Your task to perform on an android device: Open ESPN.com Image 0: 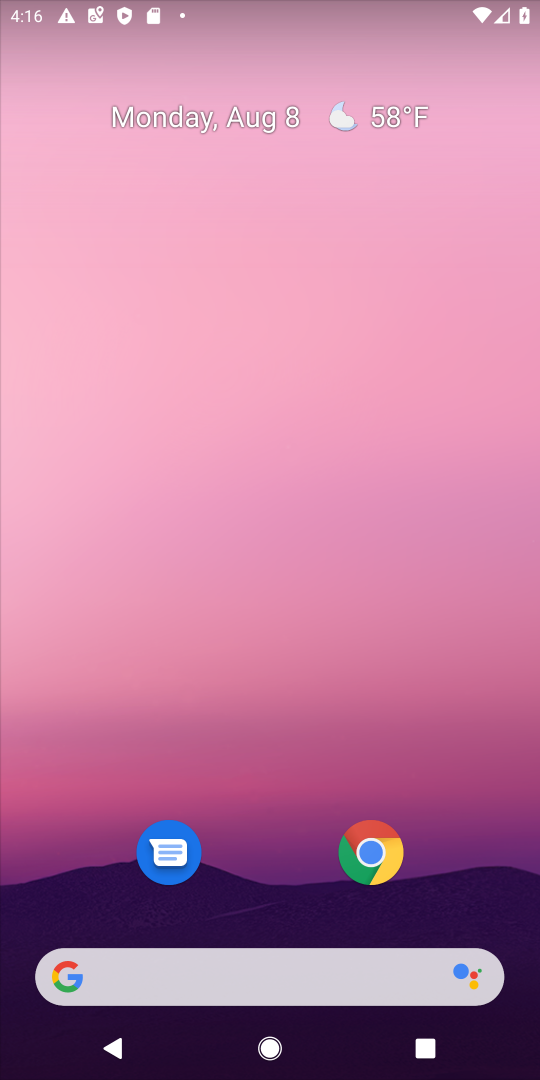
Step 0: press home button
Your task to perform on an android device: Open ESPN.com Image 1: 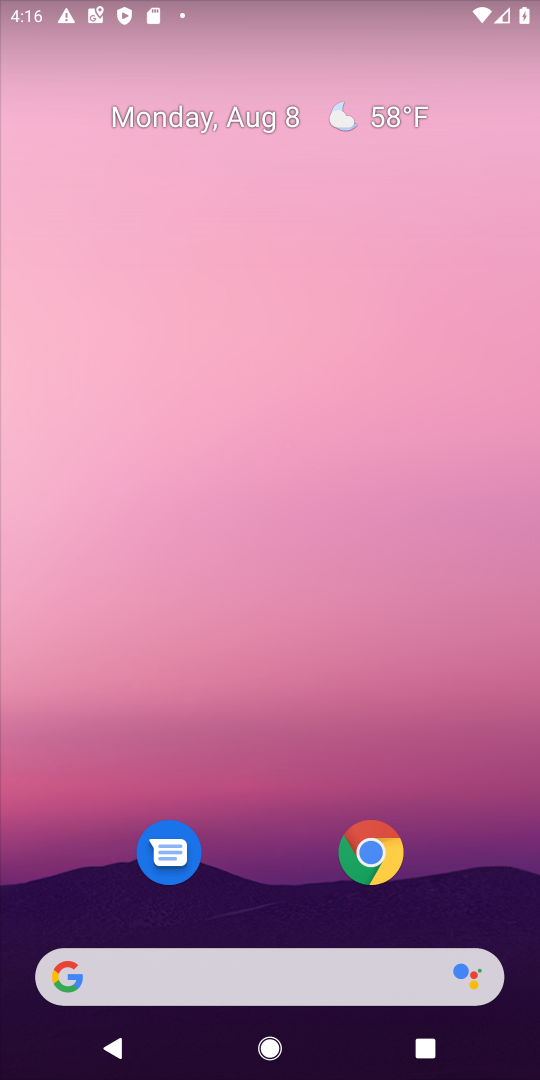
Step 1: press home button
Your task to perform on an android device: Open ESPN.com Image 2: 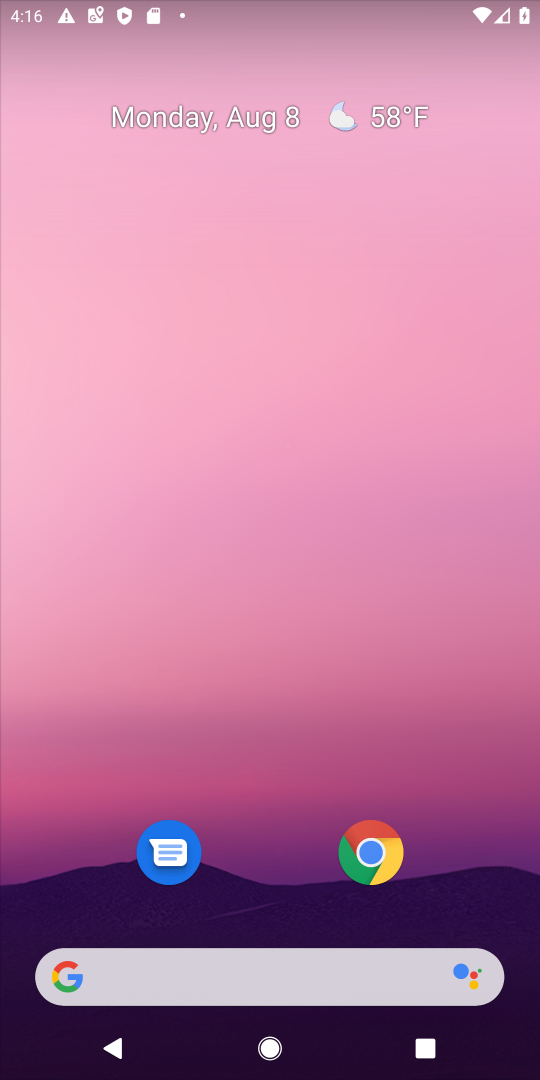
Step 2: drag from (251, 829) to (347, 24)
Your task to perform on an android device: Open ESPN.com Image 3: 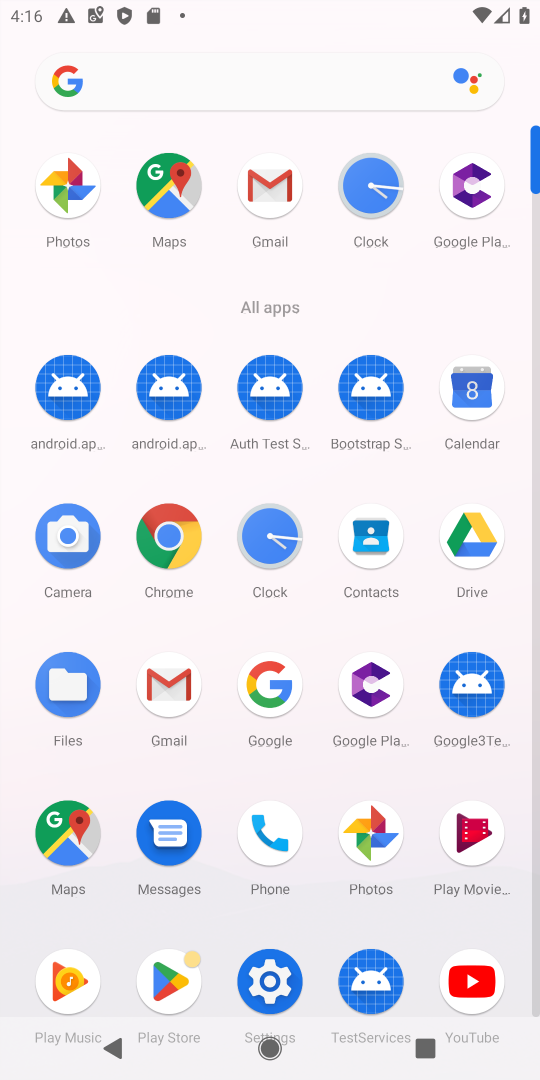
Step 3: click (167, 535)
Your task to perform on an android device: Open ESPN.com Image 4: 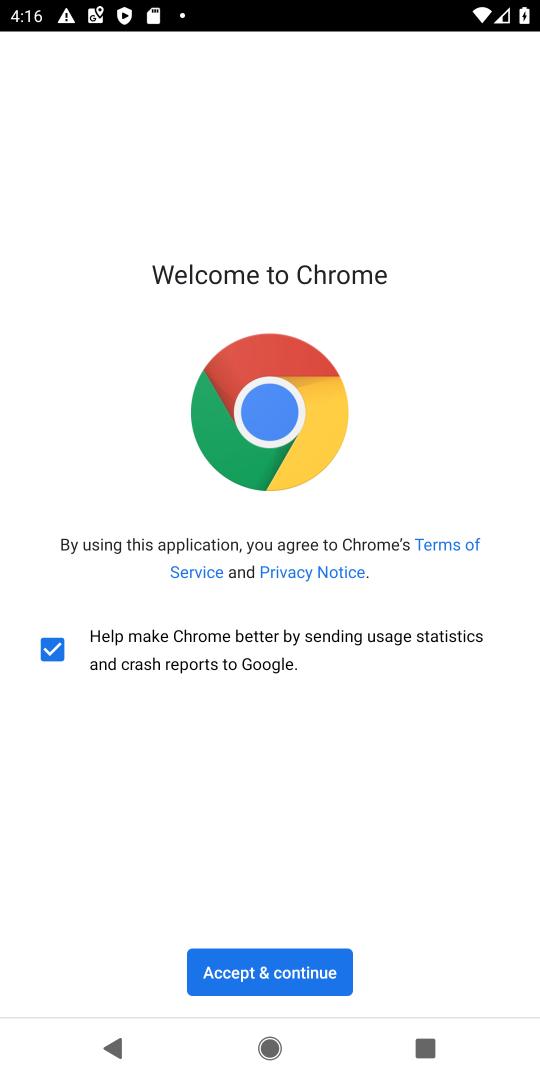
Step 4: click (310, 965)
Your task to perform on an android device: Open ESPN.com Image 5: 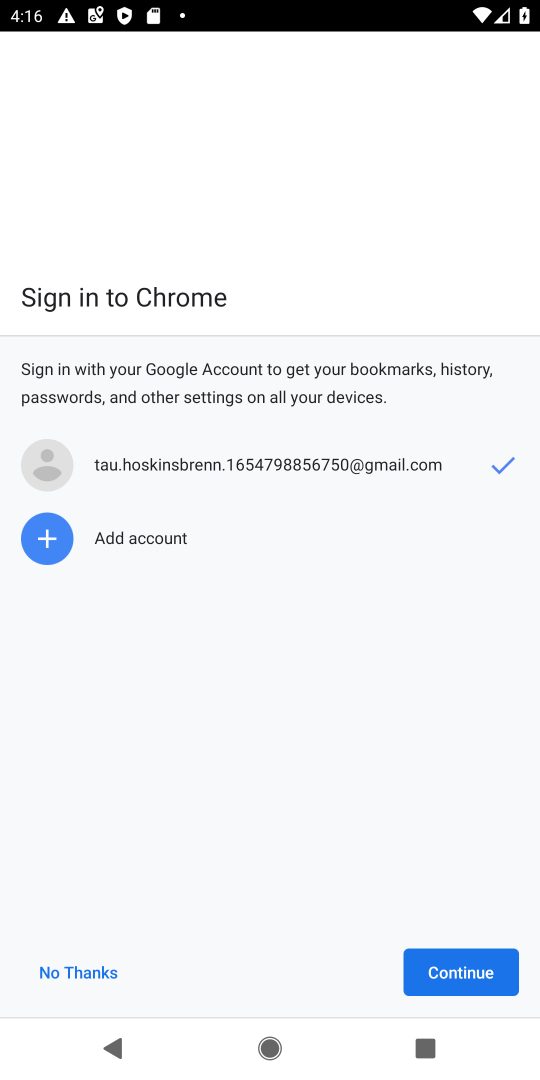
Step 5: click (466, 972)
Your task to perform on an android device: Open ESPN.com Image 6: 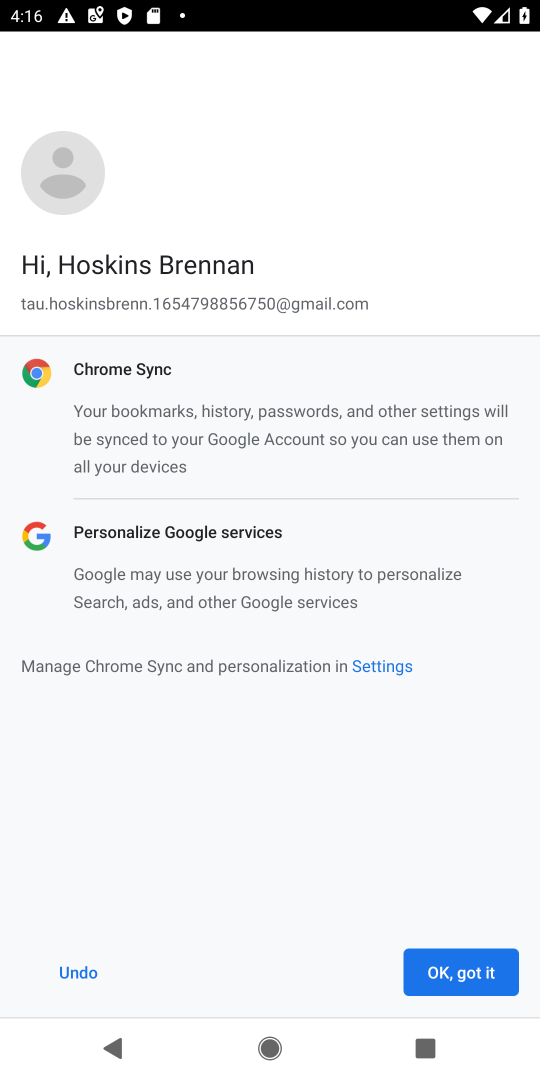
Step 6: click (447, 973)
Your task to perform on an android device: Open ESPN.com Image 7: 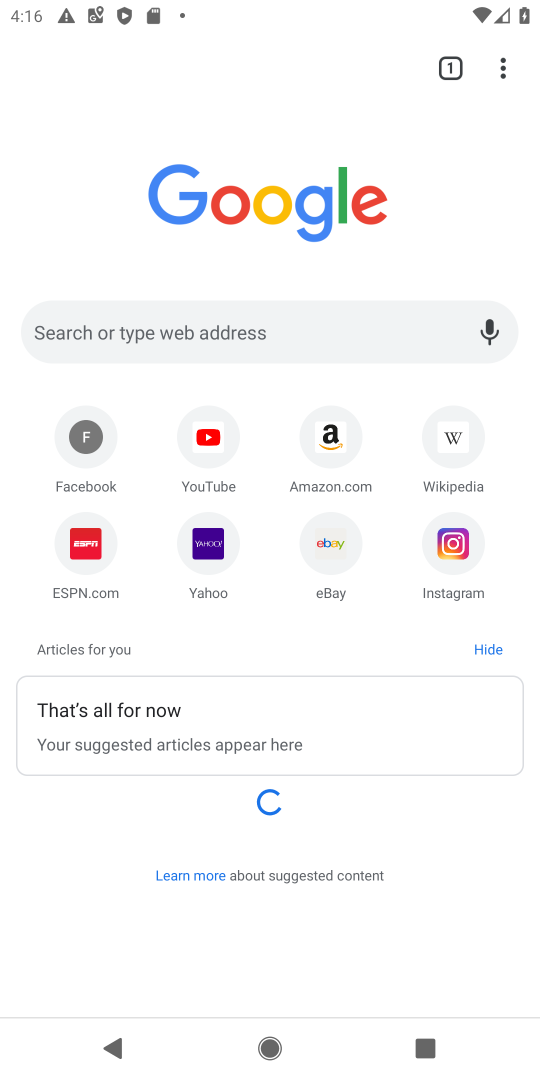
Step 7: click (89, 537)
Your task to perform on an android device: Open ESPN.com Image 8: 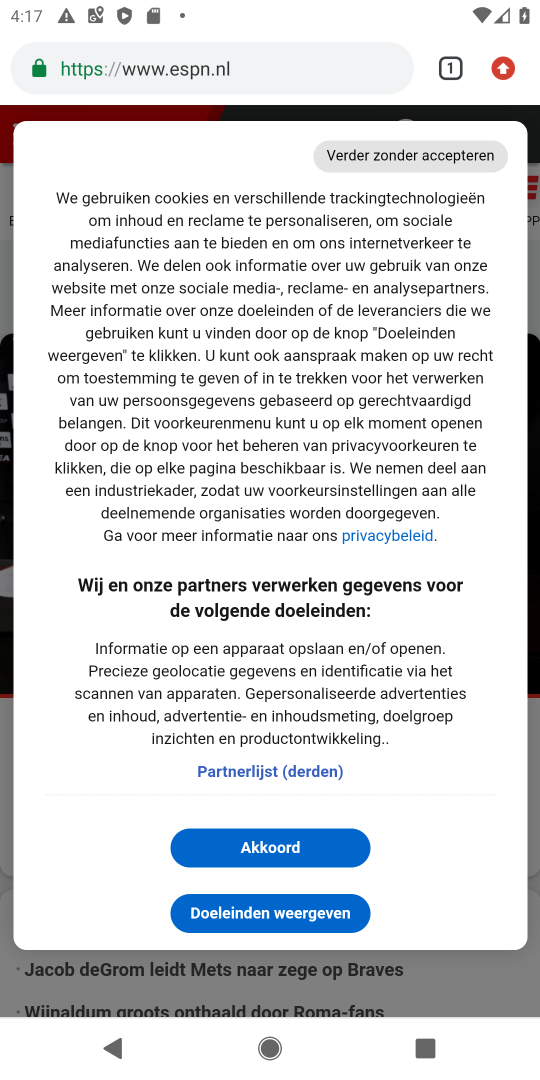
Step 8: task complete